Your task to perform on an android device: Open Youtube and go to the subscriptions tab Image 0: 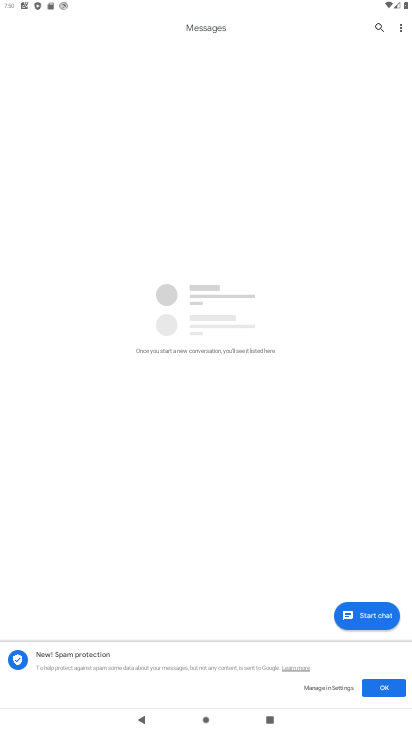
Step 0: press home button
Your task to perform on an android device: Open Youtube and go to the subscriptions tab Image 1: 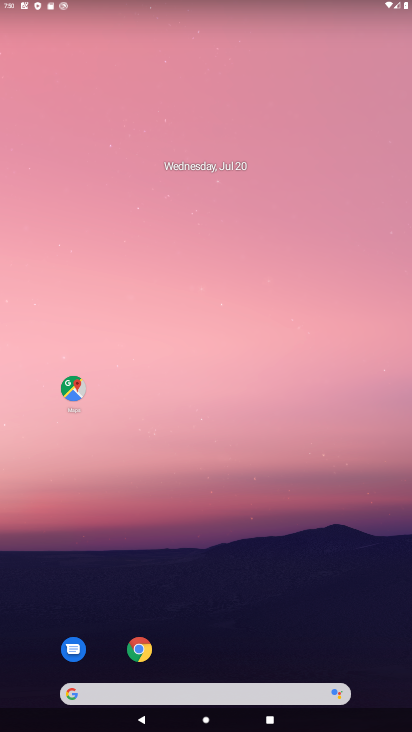
Step 1: drag from (232, 659) to (205, 32)
Your task to perform on an android device: Open Youtube and go to the subscriptions tab Image 2: 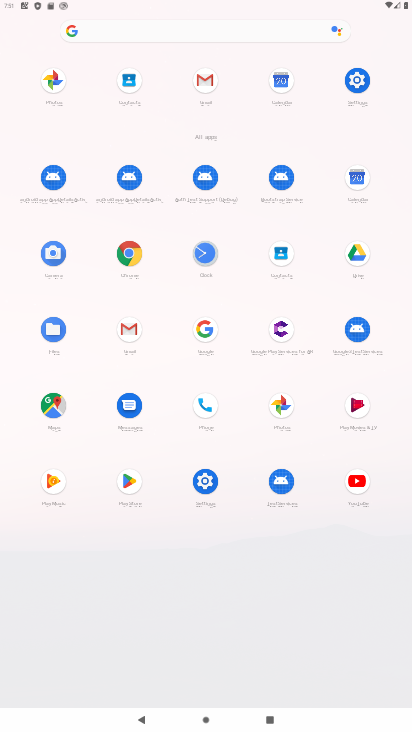
Step 2: click (349, 484)
Your task to perform on an android device: Open Youtube and go to the subscriptions tab Image 3: 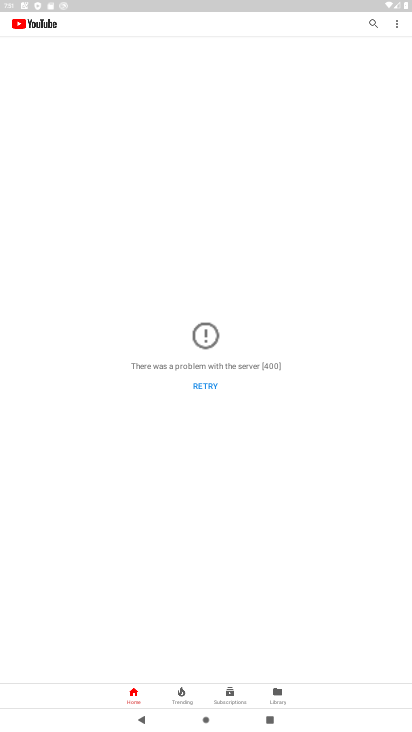
Step 3: click (229, 688)
Your task to perform on an android device: Open Youtube and go to the subscriptions tab Image 4: 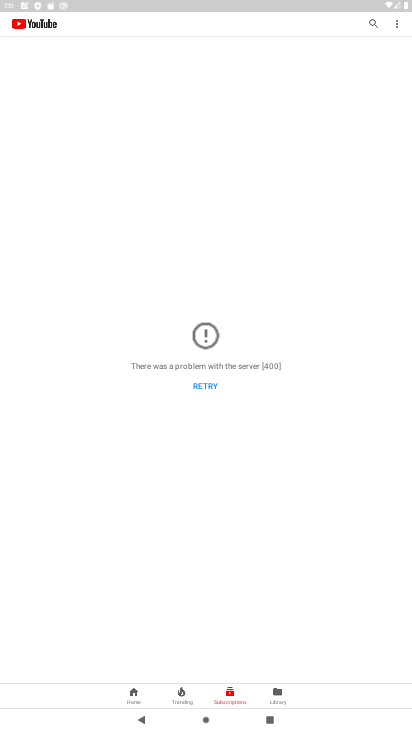
Step 4: task complete